Your task to perform on an android device: What's the weather today? Image 0: 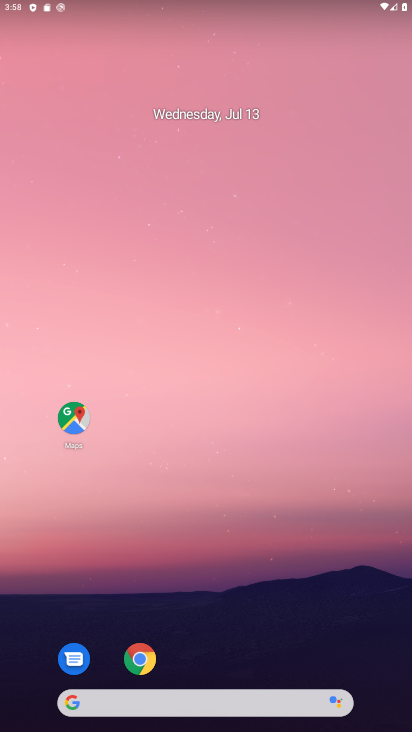
Step 0: click (202, 693)
Your task to perform on an android device: What's the weather today? Image 1: 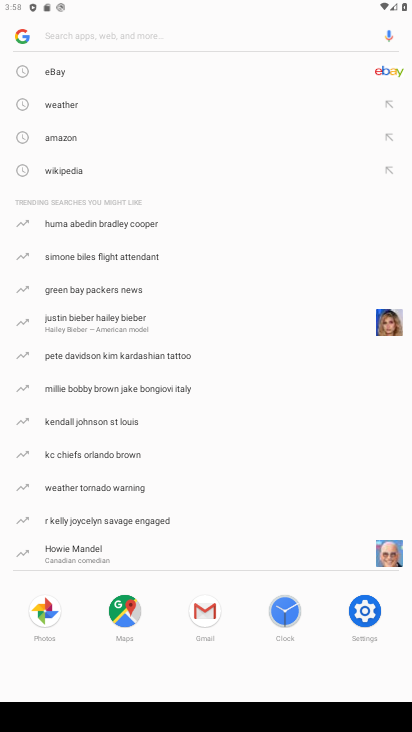
Step 1: type "weather today"
Your task to perform on an android device: What's the weather today? Image 2: 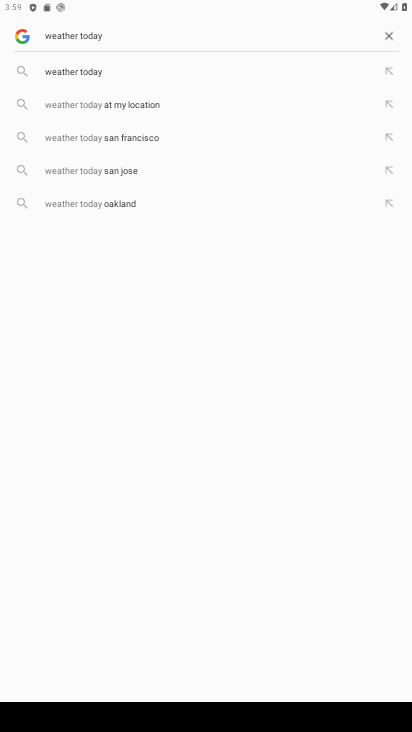
Step 2: click (166, 76)
Your task to perform on an android device: What's the weather today? Image 3: 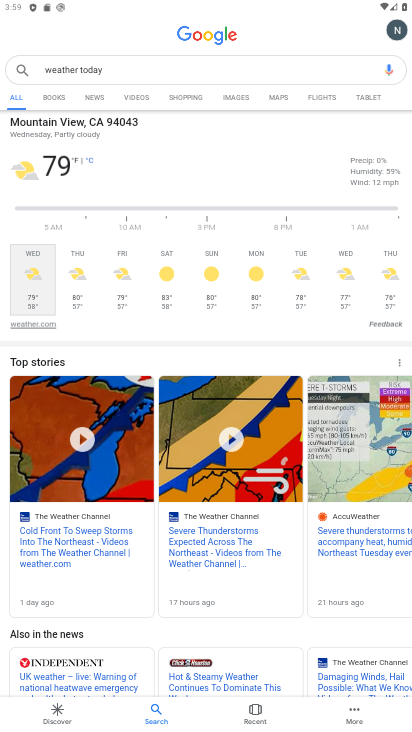
Step 3: task complete